Your task to perform on an android device: turn notification dots off Image 0: 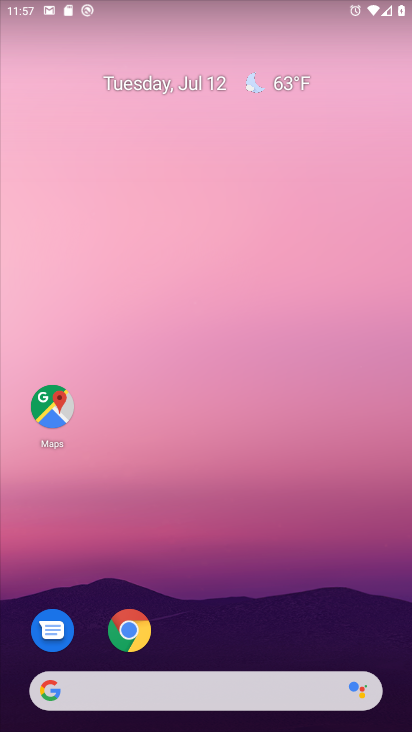
Step 0: drag from (227, 687) to (201, 149)
Your task to perform on an android device: turn notification dots off Image 1: 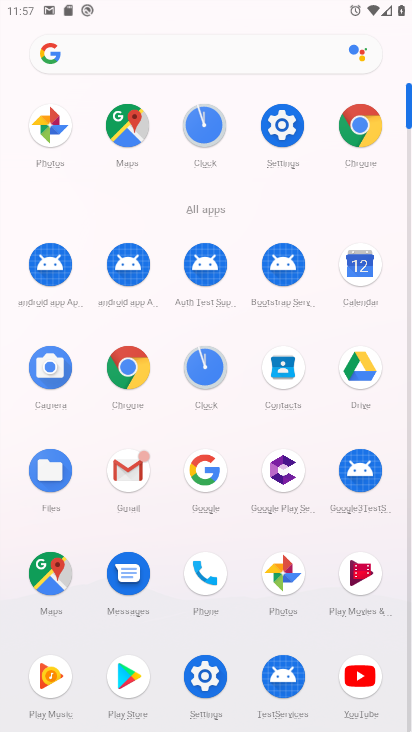
Step 1: click (286, 118)
Your task to perform on an android device: turn notification dots off Image 2: 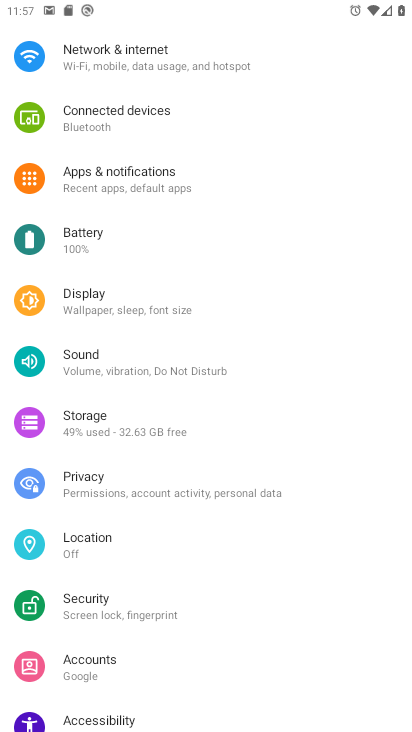
Step 2: click (143, 189)
Your task to perform on an android device: turn notification dots off Image 3: 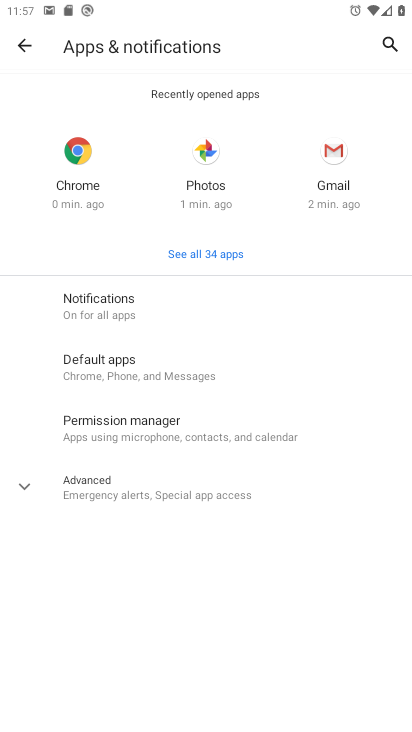
Step 3: click (132, 319)
Your task to perform on an android device: turn notification dots off Image 4: 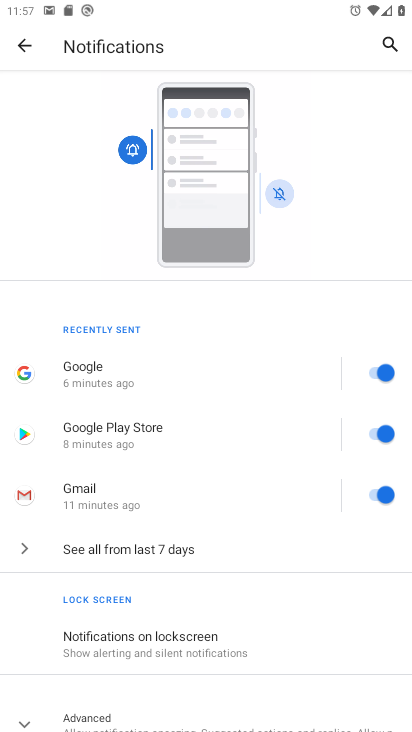
Step 4: drag from (177, 679) to (188, 329)
Your task to perform on an android device: turn notification dots off Image 5: 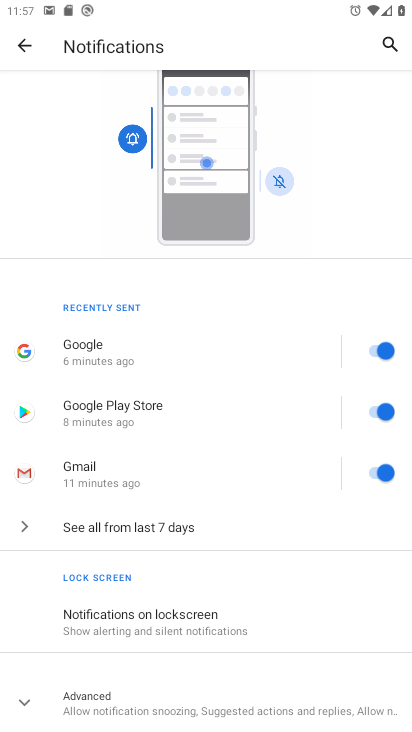
Step 5: click (97, 715)
Your task to perform on an android device: turn notification dots off Image 6: 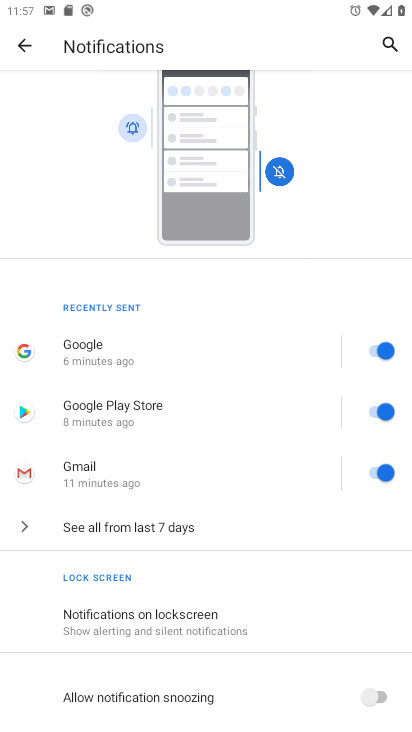
Step 6: drag from (227, 651) to (196, 155)
Your task to perform on an android device: turn notification dots off Image 7: 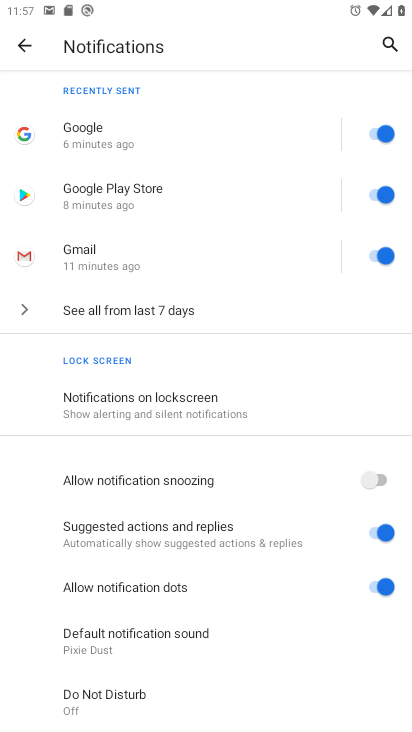
Step 7: click (381, 583)
Your task to perform on an android device: turn notification dots off Image 8: 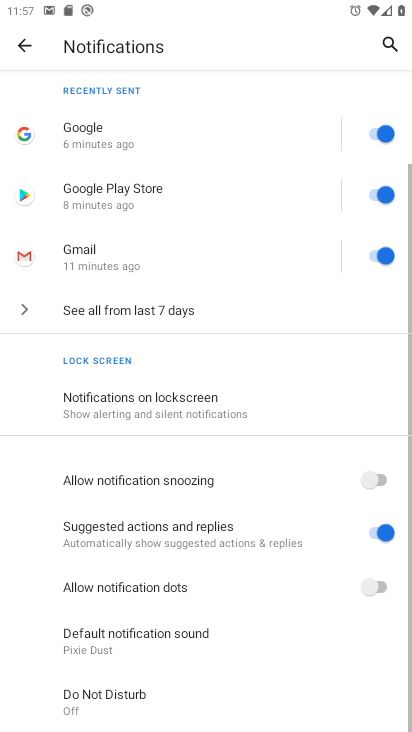
Step 8: task complete